Your task to perform on an android device: Open calendar and show me the second week of next month Image 0: 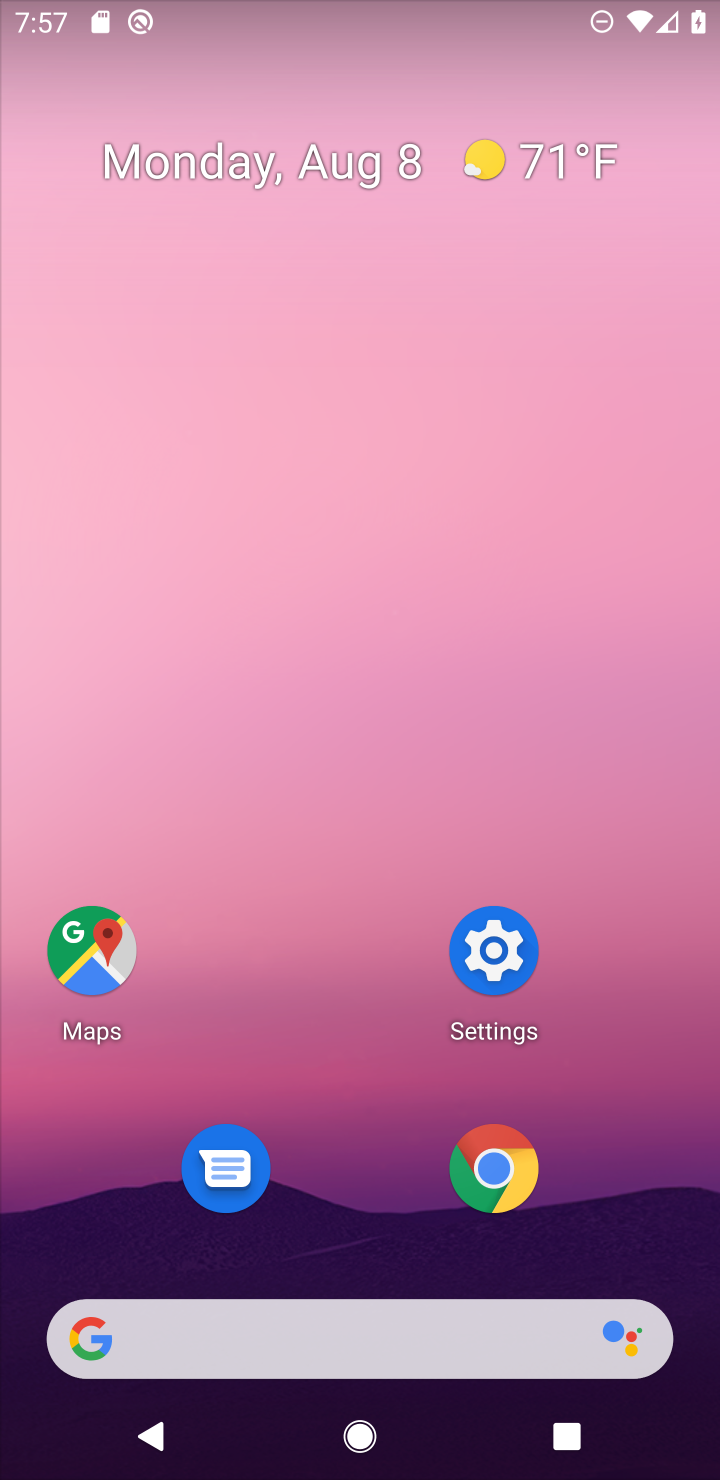
Step 0: drag from (370, 1024) to (535, 369)
Your task to perform on an android device: Open calendar and show me the second week of next month Image 1: 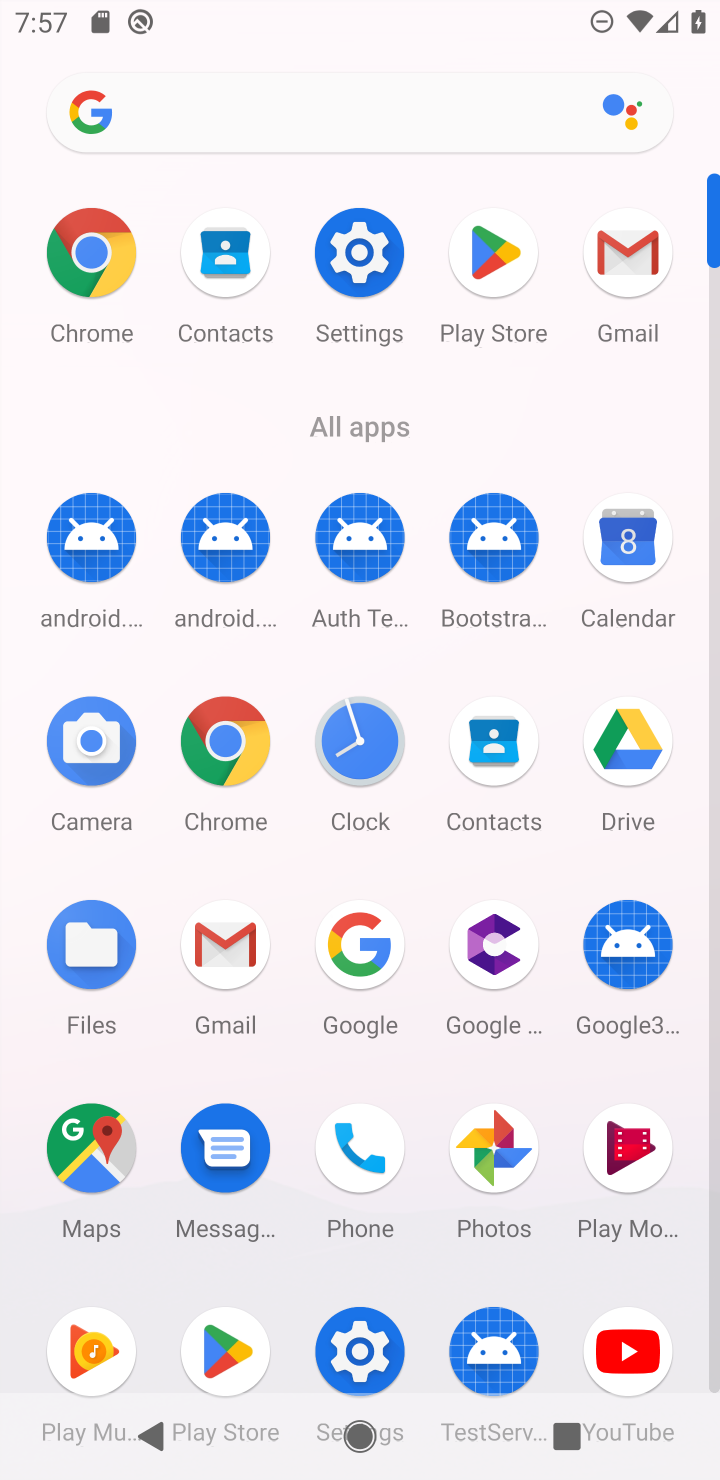
Step 1: click (626, 550)
Your task to perform on an android device: Open calendar and show me the second week of next month Image 2: 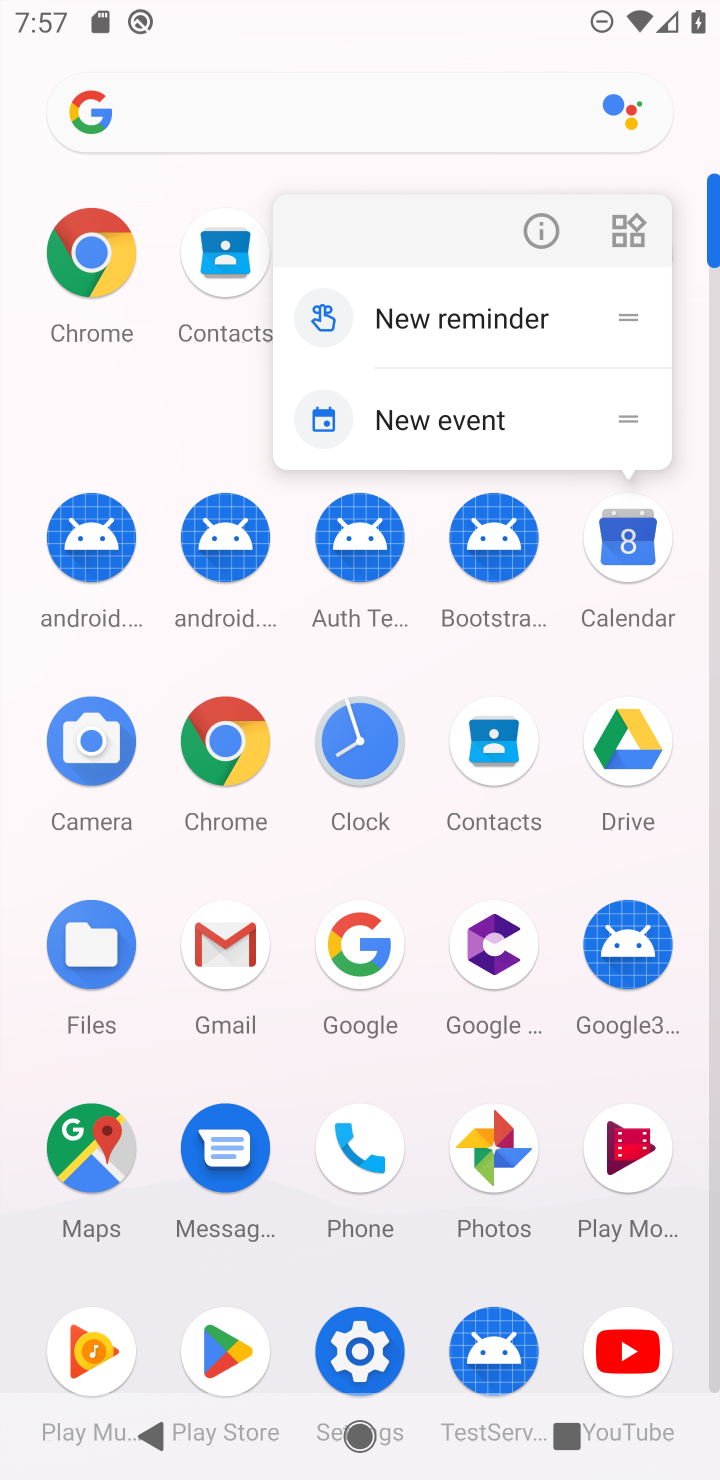
Step 2: click (639, 548)
Your task to perform on an android device: Open calendar and show me the second week of next month Image 3: 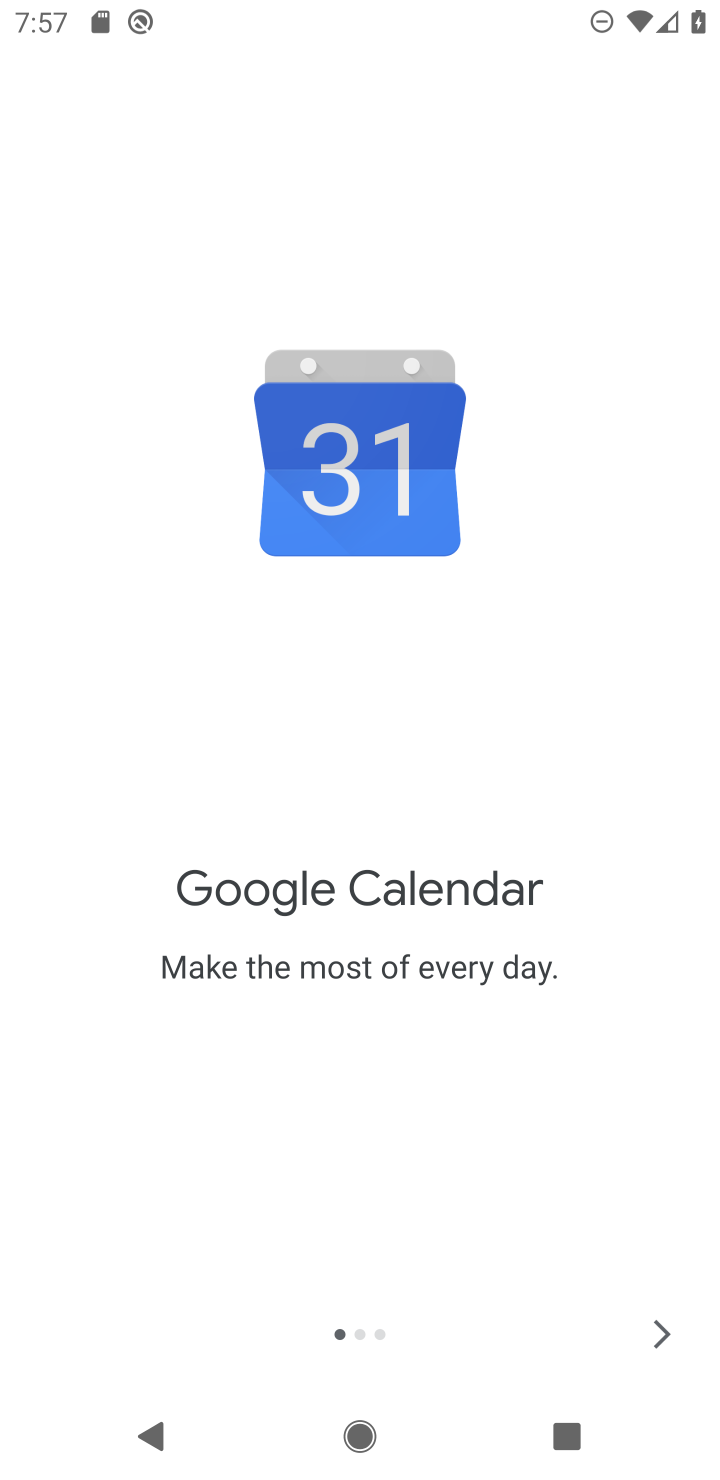
Step 3: click (651, 1312)
Your task to perform on an android device: Open calendar and show me the second week of next month Image 4: 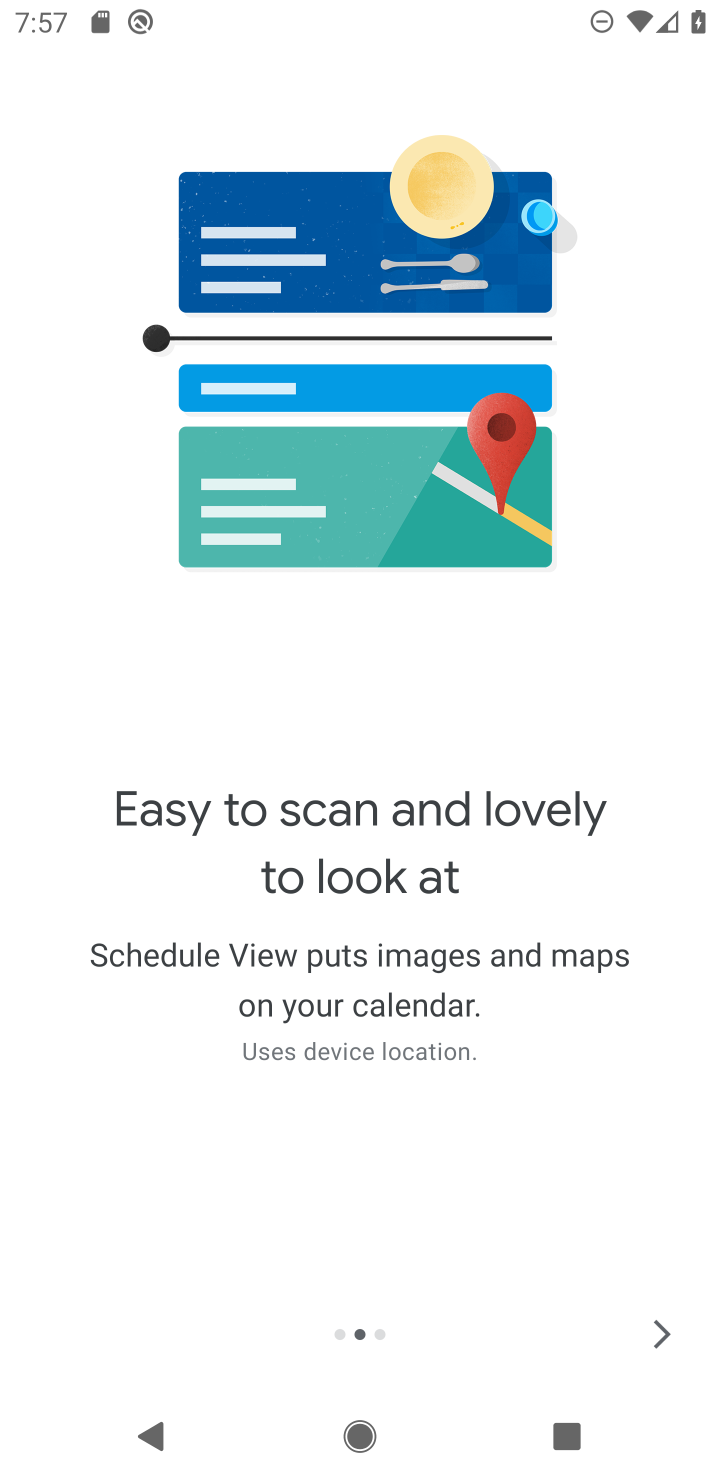
Step 4: click (662, 1329)
Your task to perform on an android device: Open calendar and show me the second week of next month Image 5: 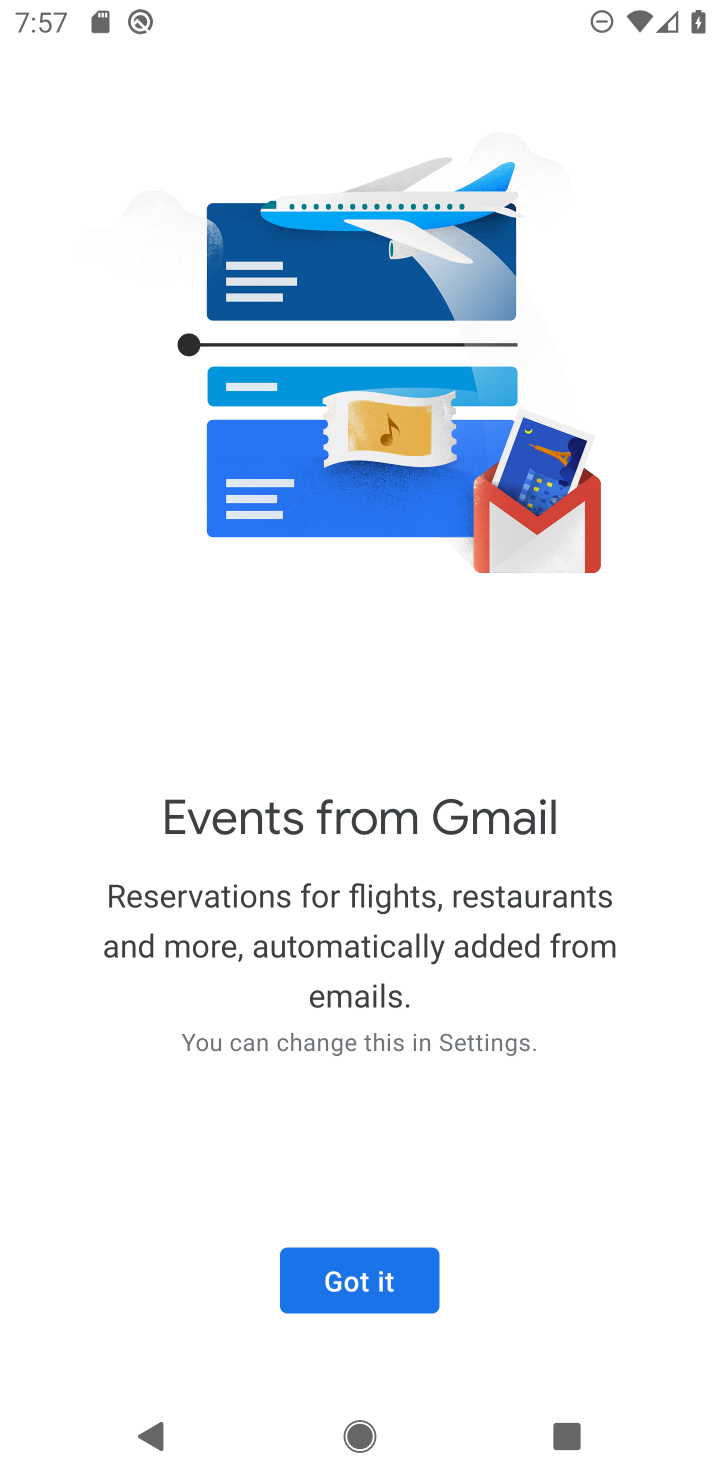
Step 5: click (364, 1277)
Your task to perform on an android device: Open calendar and show me the second week of next month Image 6: 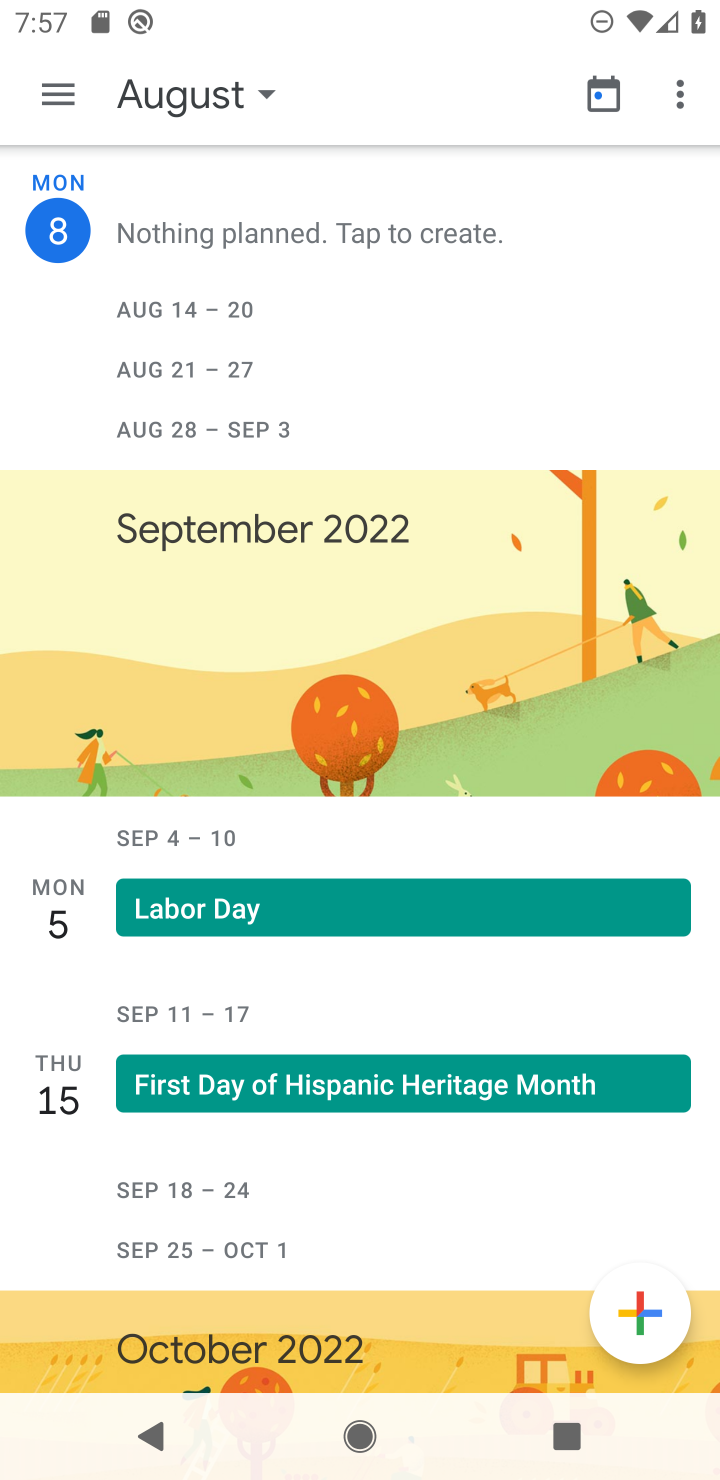
Step 6: click (176, 95)
Your task to perform on an android device: Open calendar and show me the second week of next month Image 7: 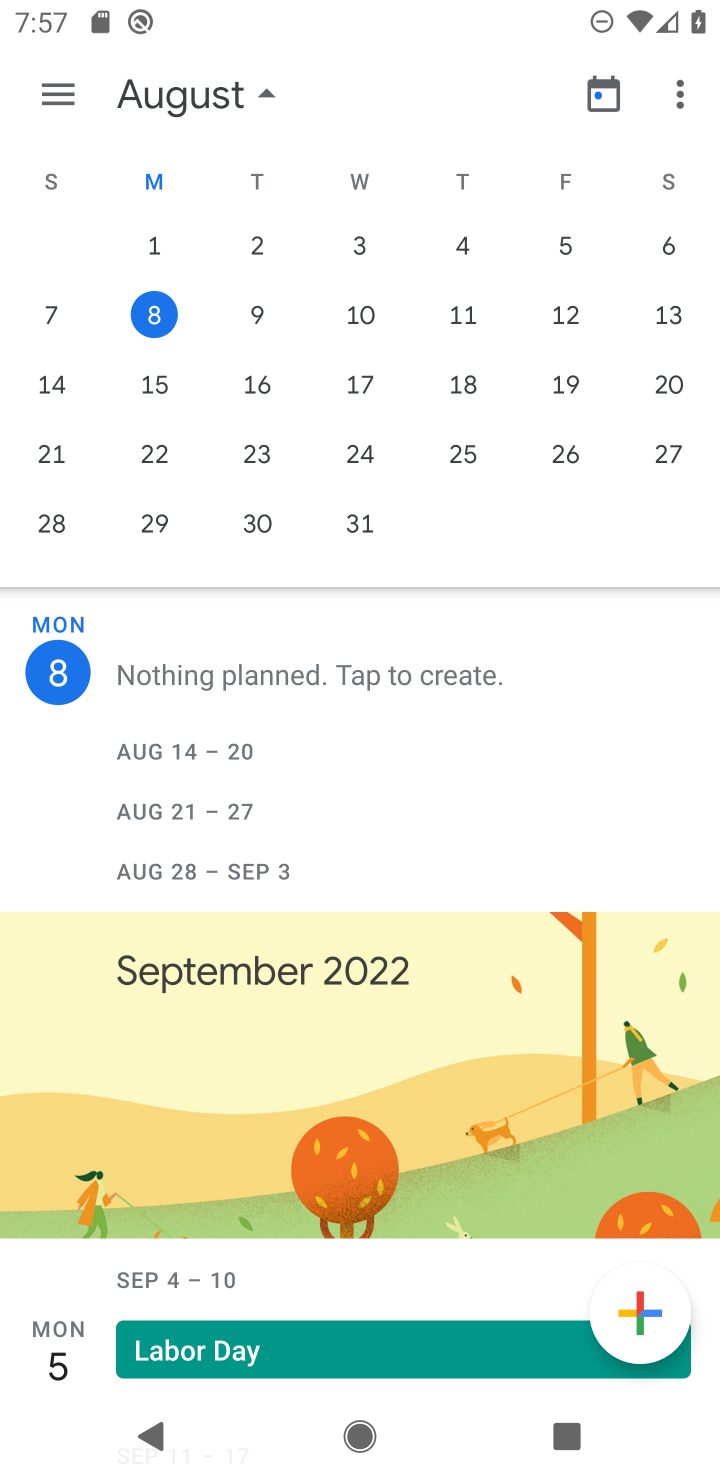
Step 7: drag from (598, 408) to (49, 449)
Your task to perform on an android device: Open calendar and show me the second week of next month Image 8: 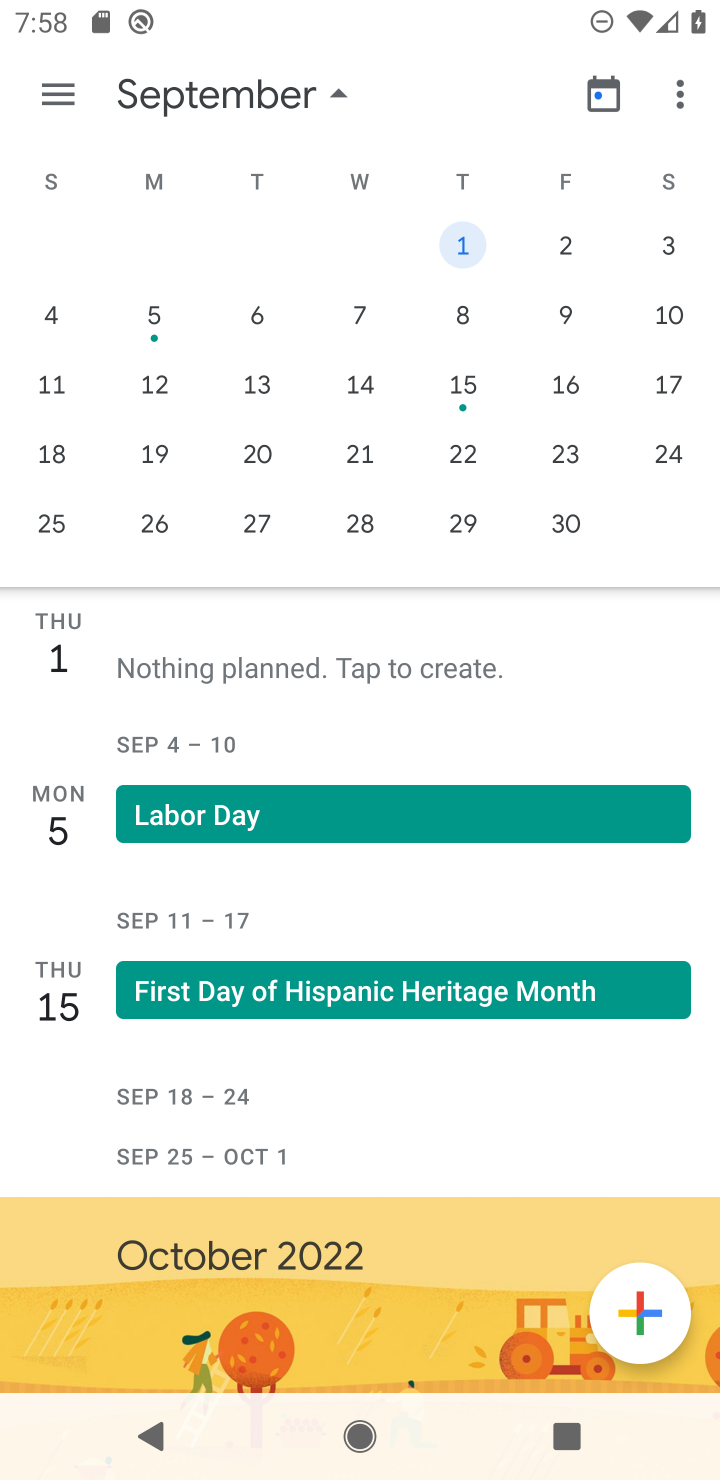
Step 8: click (48, 315)
Your task to perform on an android device: Open calendar and show me the second week of next month Image 9: 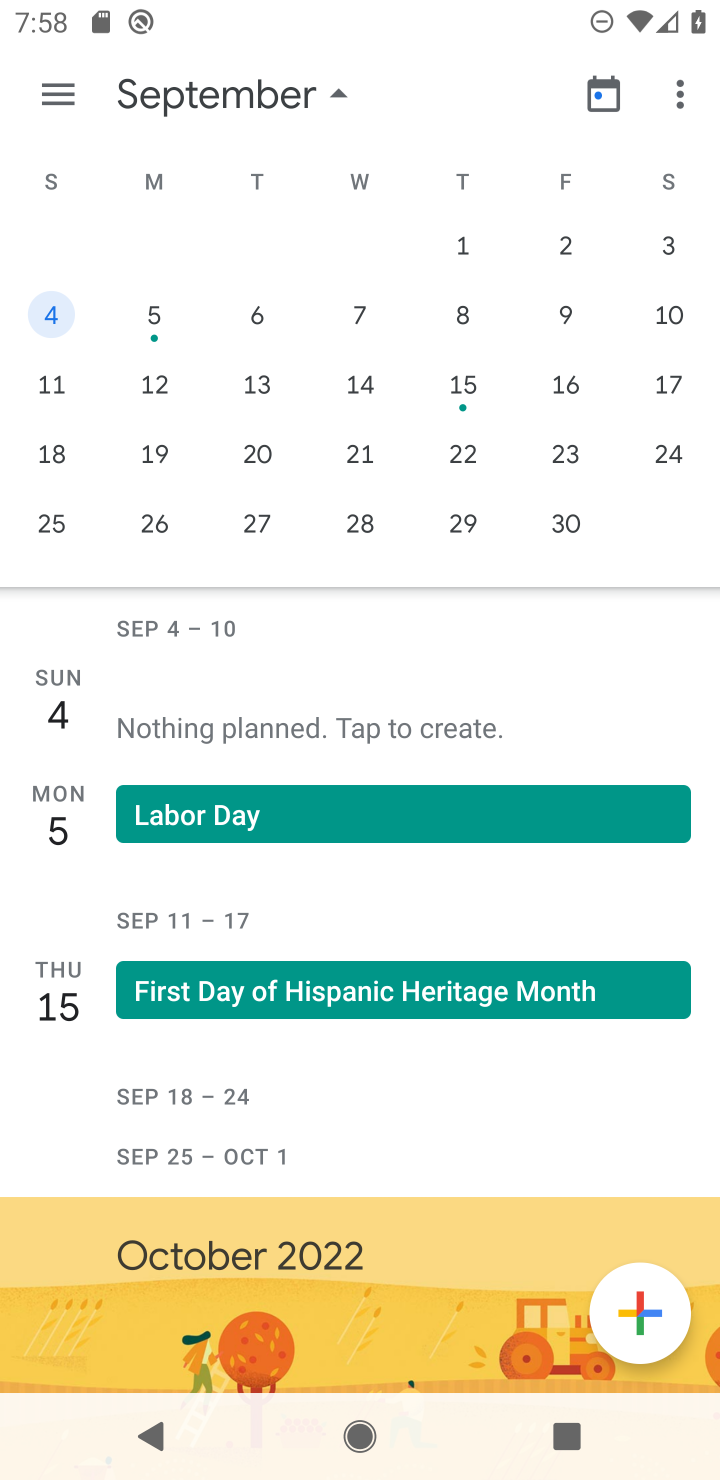
Step 9: click (40, 93)
Your task to perform on an android device: Open calendar and show me the second week of next month Image 10: 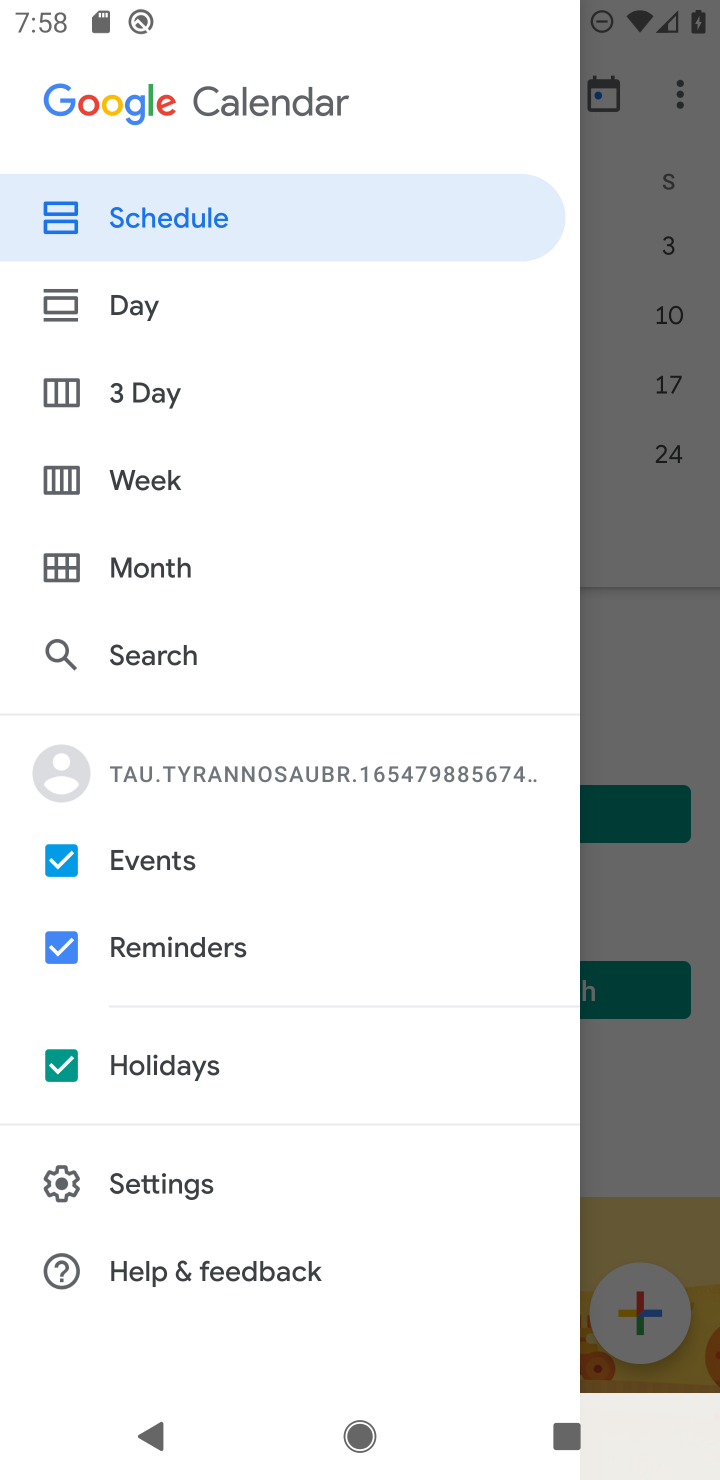
Step 10: click (165, 491)
Your task to perform on an android device: Open calendar and show me the second week of next month Image 11: 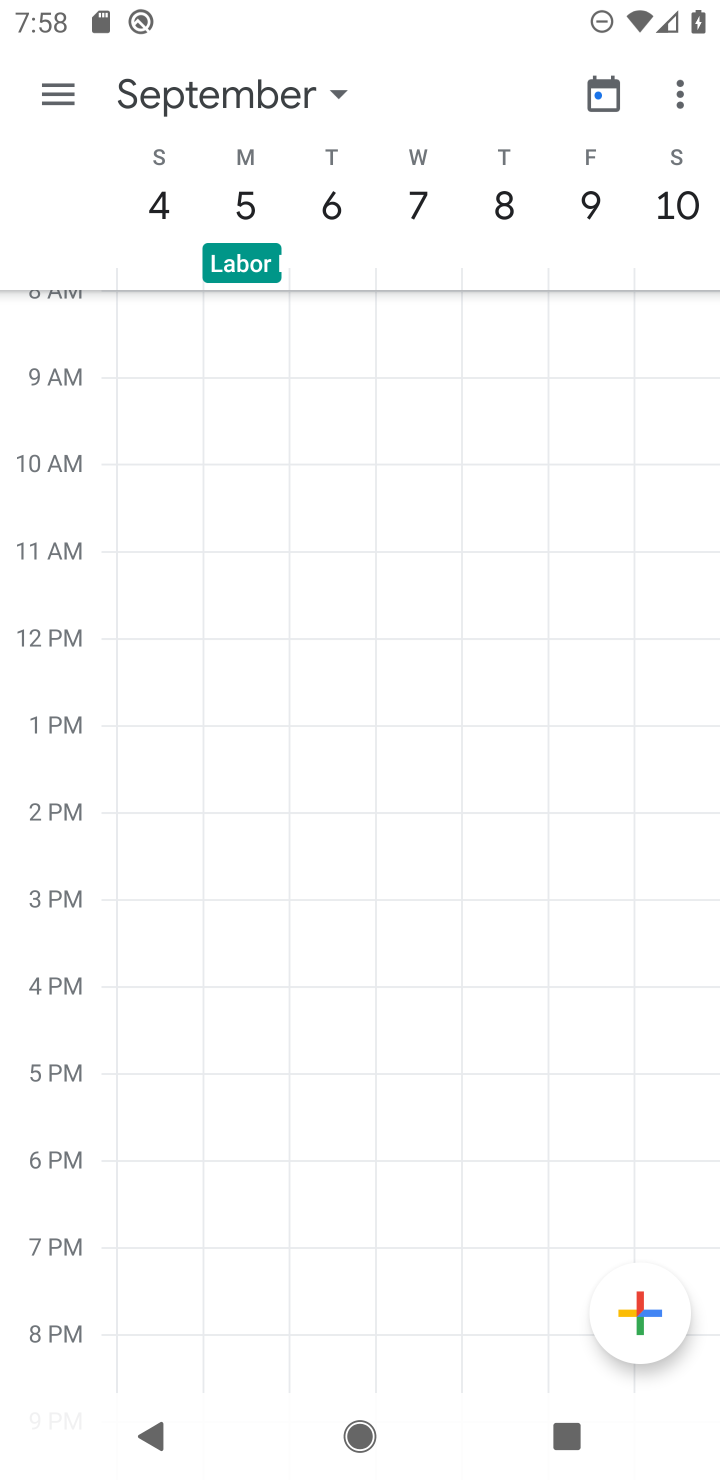
Step 11: task complete